Your task to perform on an android device: turn smart compose on in the gmail app Image 0: 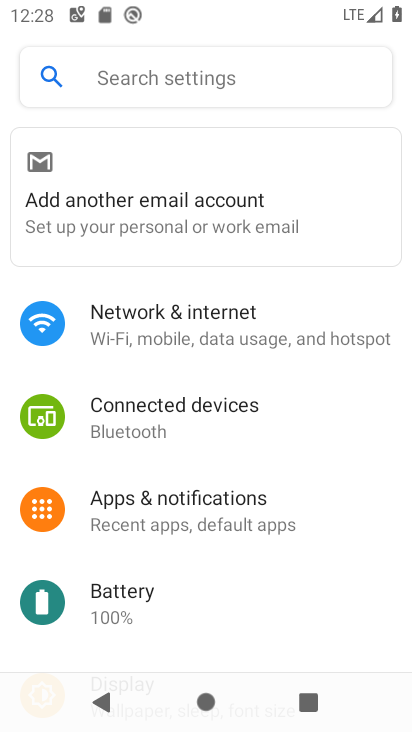
Step 0: press home button
Your task to perform on an android device: turn smart compose on in the gmail app Image 1: 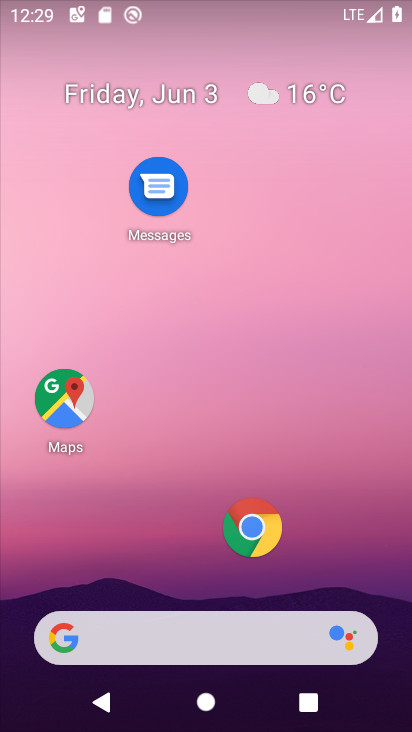
Step 1: drag from (192, 581) to (258, 68)
Your task to perform on an android device: turn smart compose on in the gmail app Image 2: 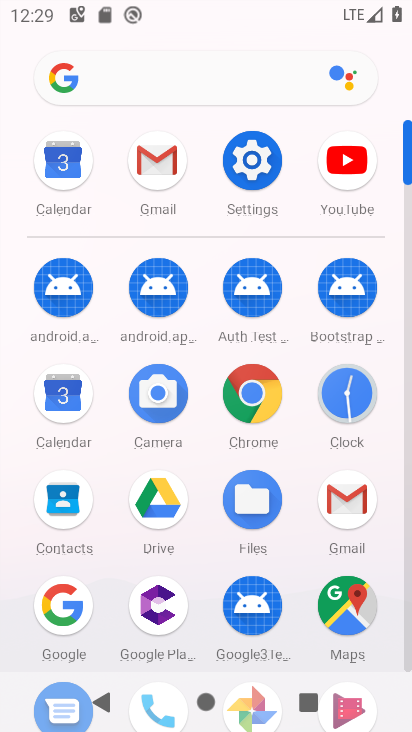
Step 2: click (346, 489)
Your task to perform on an android device: turn smart compose on in the gmail app Image 3: 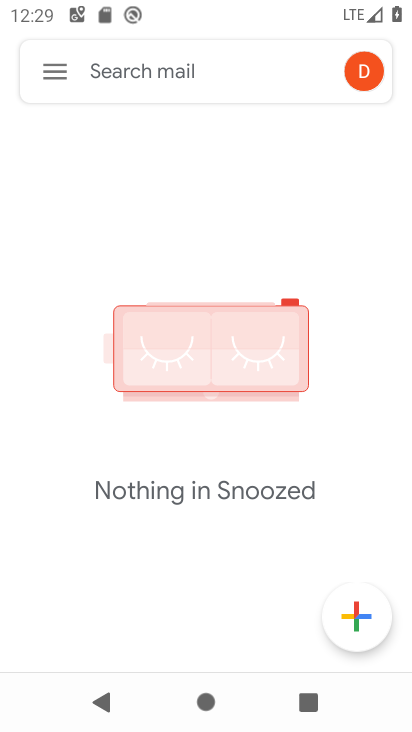
Step 3: click (44, 73)
Your task to perform on an android device: turn smart compose on in the gmail app Image 4: 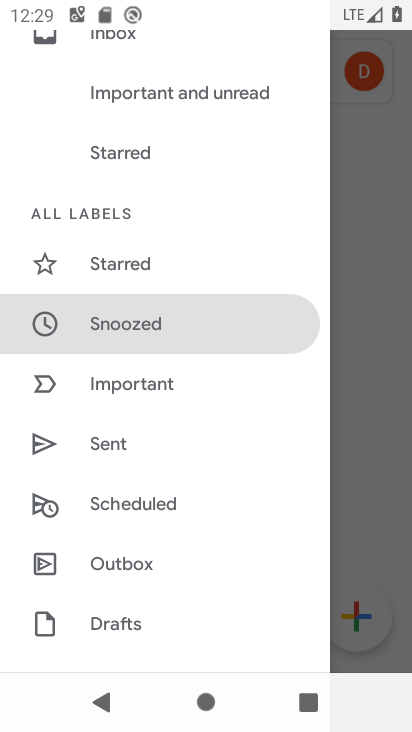
Step 4: drag from (176, 607) to (209, 89)
Your task to perform on an android device: turn smart compose on in the gmail app Image 5: 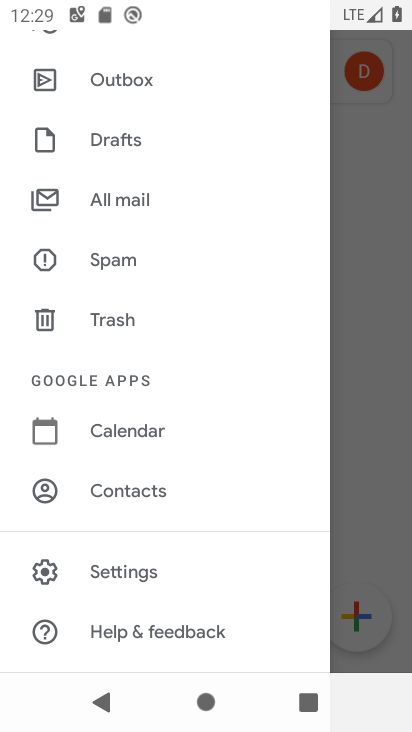
Step 5: click (167, 570)
Your task to perform on an android device: turn smart compose on in the gmail app Image 6: 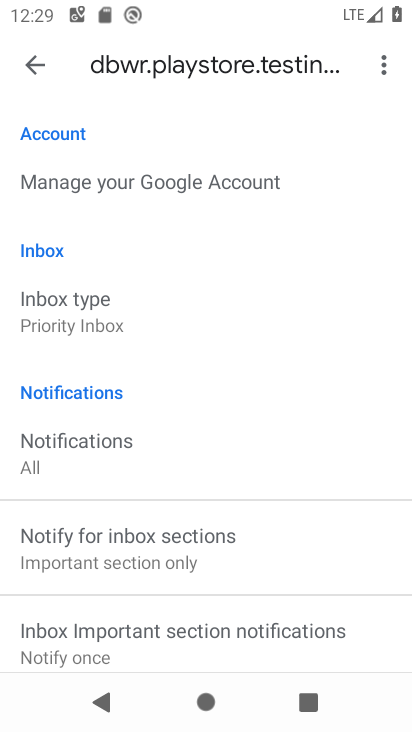
Step 6: drag from (162, 634) to (213, 181)
Your task to perform on an android device: turn smart compose on in the gmail app Image 7: 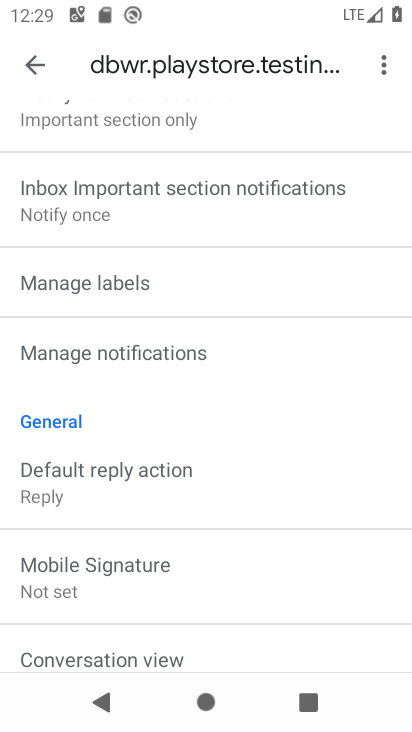
Step 7: drag from (195, 614) to (233, 417)
Your task to perform on an android device: turn smart compose on in the gmail app Image 8: 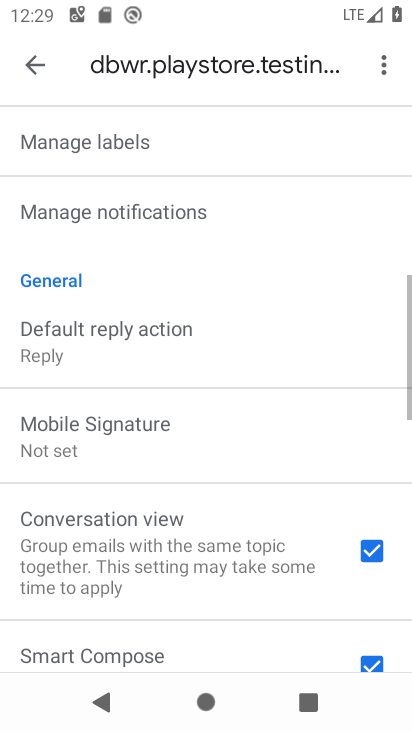
Step 8: drag from (248, 258) to (252, 143)
Your task to perform on an android device: turn smart compose on in the gmail app Image 9: 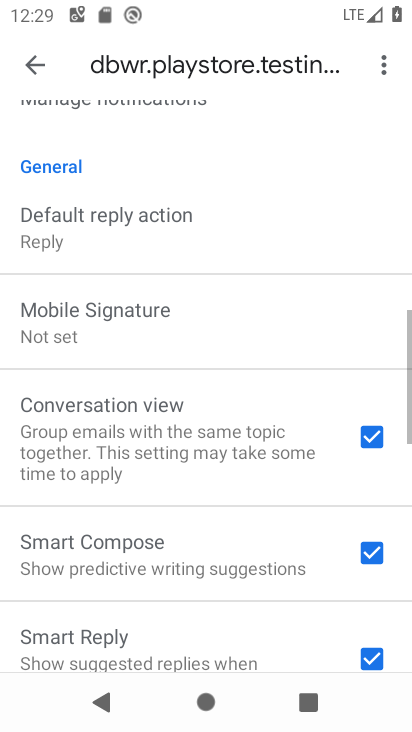
Step 9: click (253, 110)
Your task to perform on an android device: turn smart compose on in the gmail app Image 10: 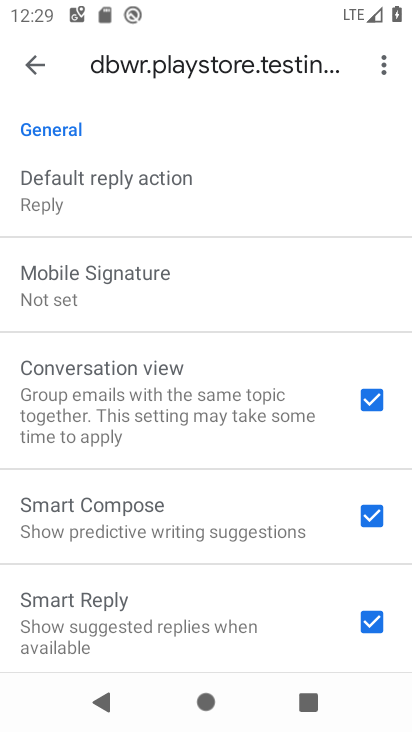
Step 10: task complete